Your task to perform on an android device: Go to sound settings Image 0: 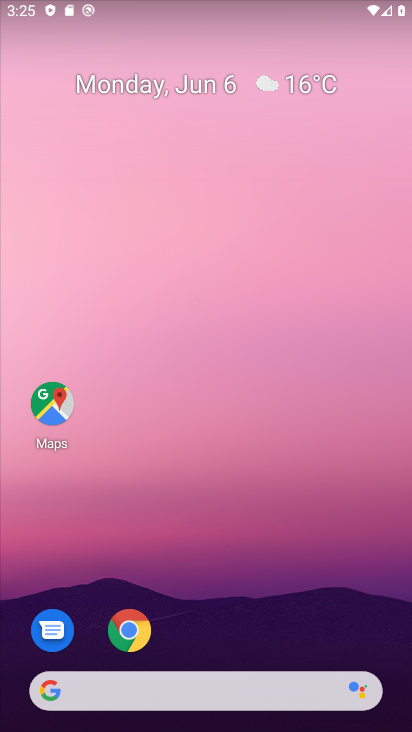
Step 0: drag from (297, 421) to (137, 26)
Your task to perform on an android device: Go to sound settings Image 1: 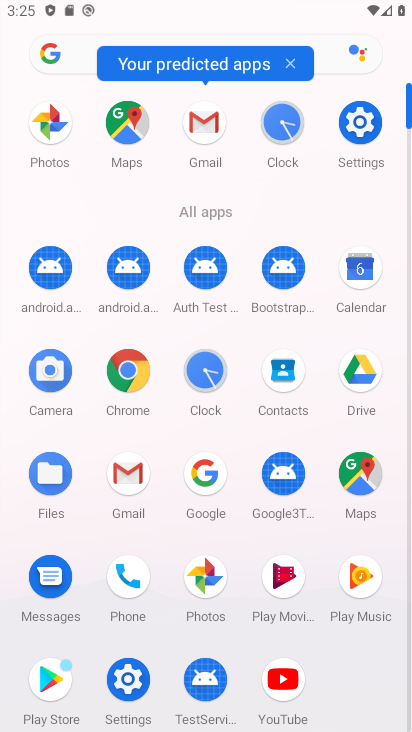
Step 1: click (356, 117)
Your task to perform on an android device: Go to sound settings Image 2: 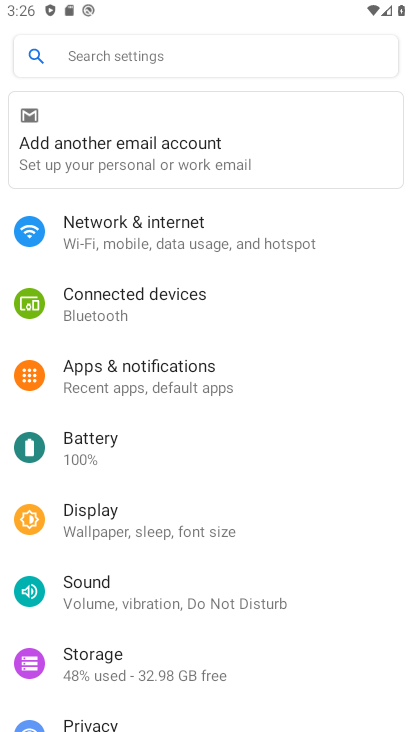
Step 2: click (203, 601)
Your task to perform on an android device: Go to sound settings Image 3: 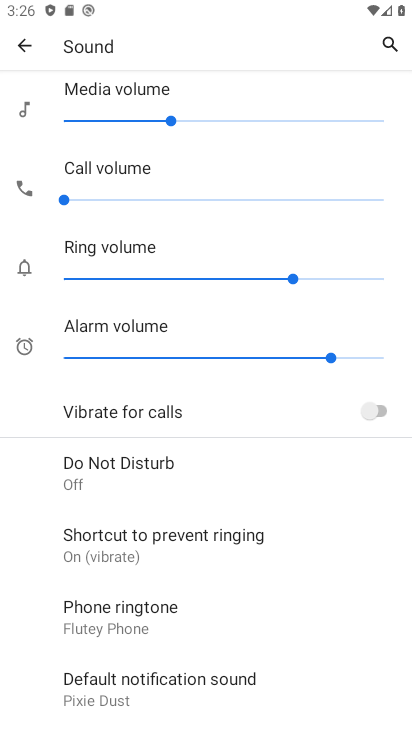
Step 3: task complete